Your task to perform on an android device: read, delete, or share a saved page in the chrome app Image 0: 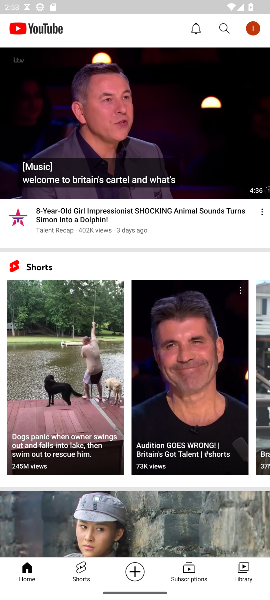
Step 0: press home button
Your task to perform on an android device: read, delete, or share a saved page in the chrome app Image 1: 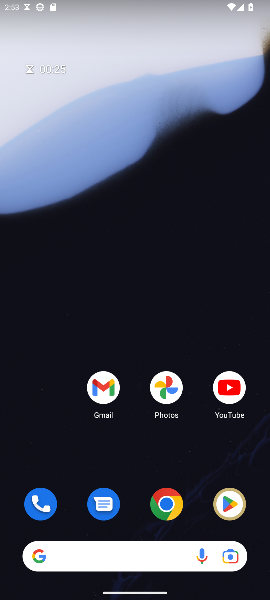
Step 1: click (156, 505)
Your task to perform on an android device: read, delete, or share a saved page in the chrome app Image 2: 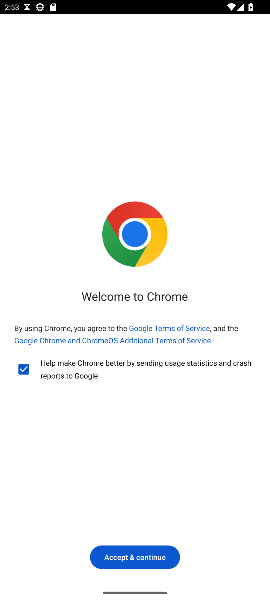
Step 2: click (131, 566)
Your task to perform on an android device: read, delete, or share a saved page in the chrome app Image 3: 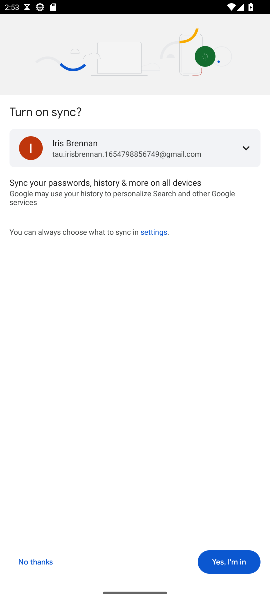
Step 3: click (223, 567)
Your task to perform on an android device: read, delete, or share a saved page in the chrome app Image 4: 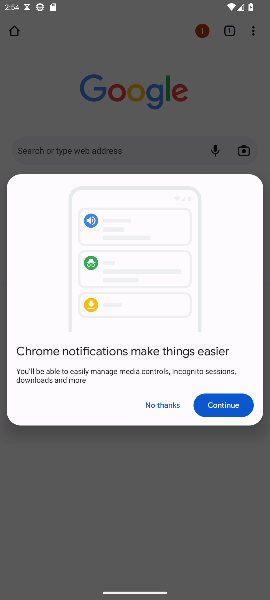
Step 4: click (222, 409)
Your task to perform on an android device: read, delete, or share a saved page in the chrome app Image 5: 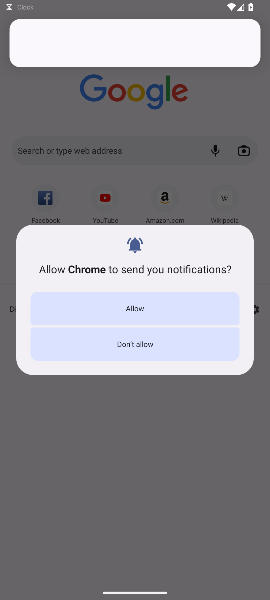
Step 5: click (137, 353)
Your task to perform on an android device: read, delete, or share a saved page in the chrome app Image 6: 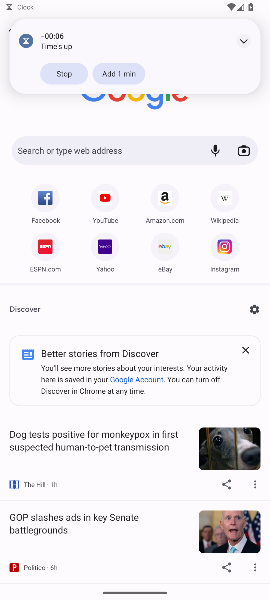
Step 6: click (66, 75)
Your task to perform on an android device: read, delete, or share a saved page in the chrome app Image 7: 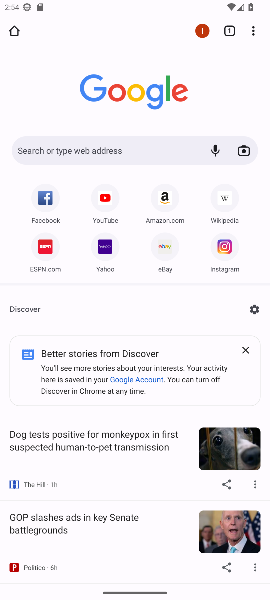
Step 7: click (255, 29)
Your task to perform on an android device: read, delete, or share a saved page in the chrome app Image 8: 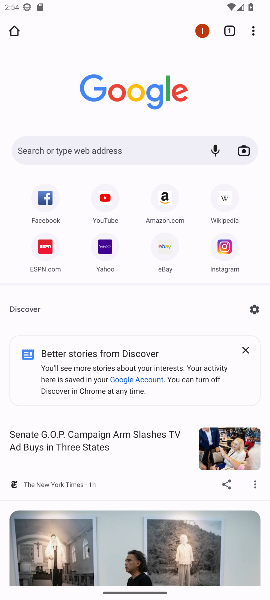
Step 8: click (249, 30)
Your task to perform on an android device: read, delete, or share a saved page in the chrome app Image 9: 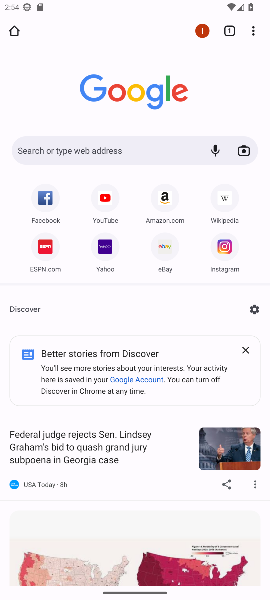
Step 9: click (253, 24)
Your task to perform on an android device: read, delete, or share a saved page in the chrome app Image 10: 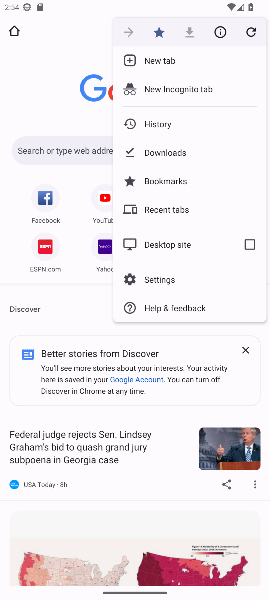
Step 10: click (164, 152)
Your task to perform on an android device: read, delete, or share a saved page in the chrome app Image 11: 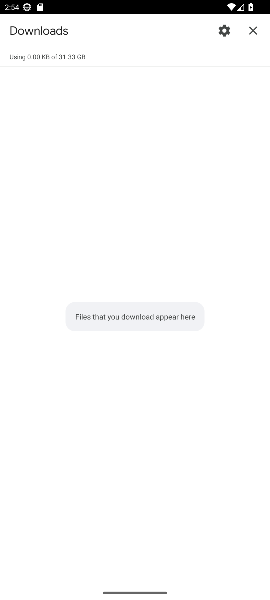
Step 11: click (74, 33)
Your task to perform on an android device: read, delete, or share a saved page in the chrome app Image 12: 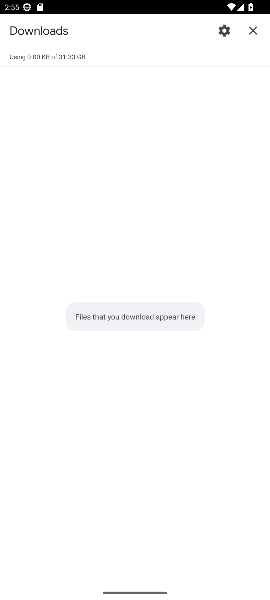
Step 12: task complete